Your task to perform on an android device: Open settings Image 0: 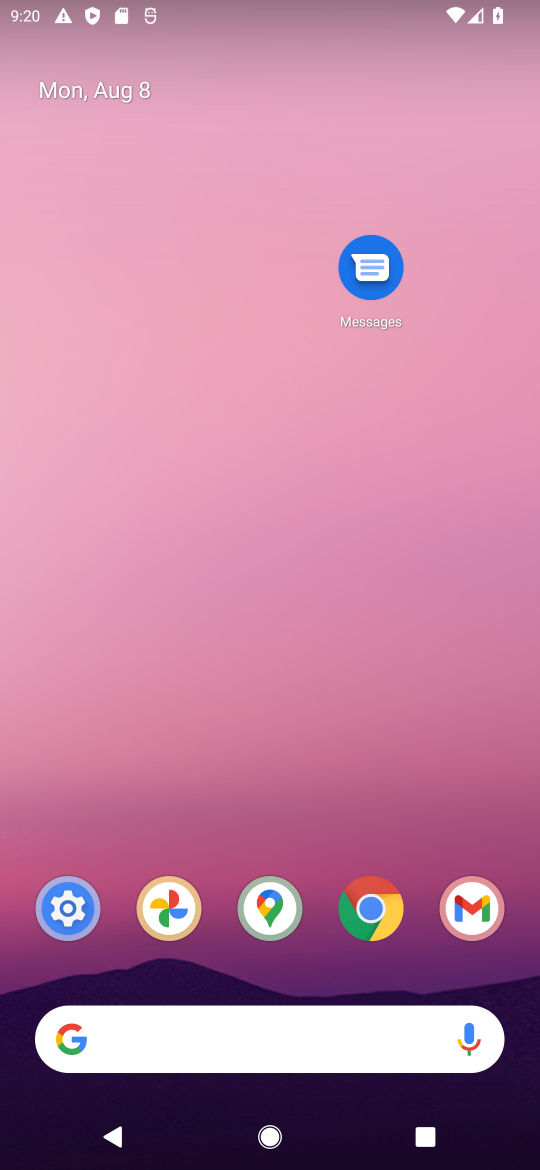
Step 0: click (65, 896)
Your task to perform on an android device: Open settings Image 1: 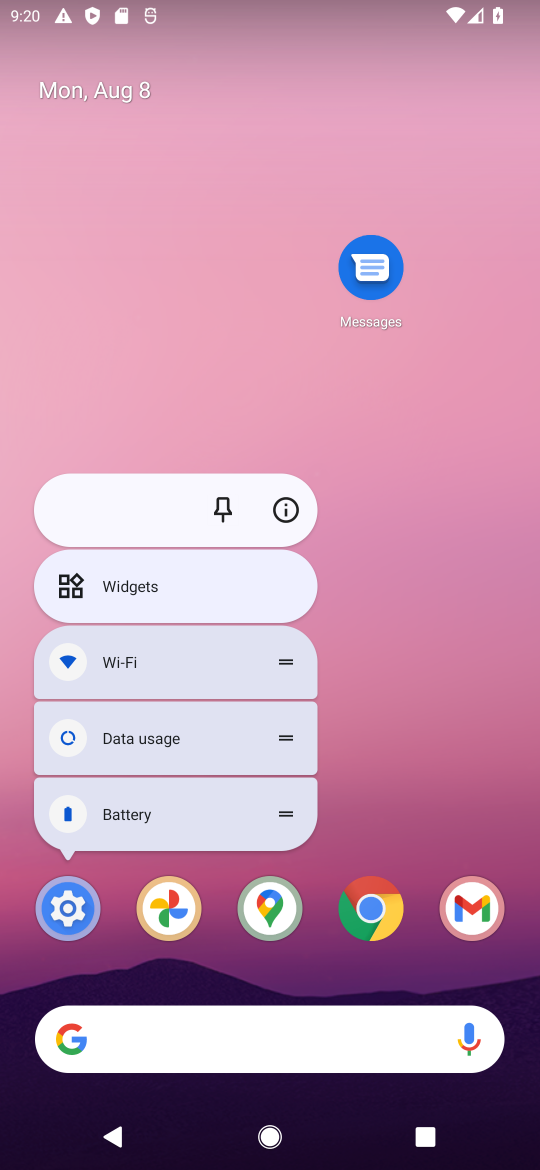
Step 1: click (65, 896)
Your task to perform on an android device: Open settings Image 2: 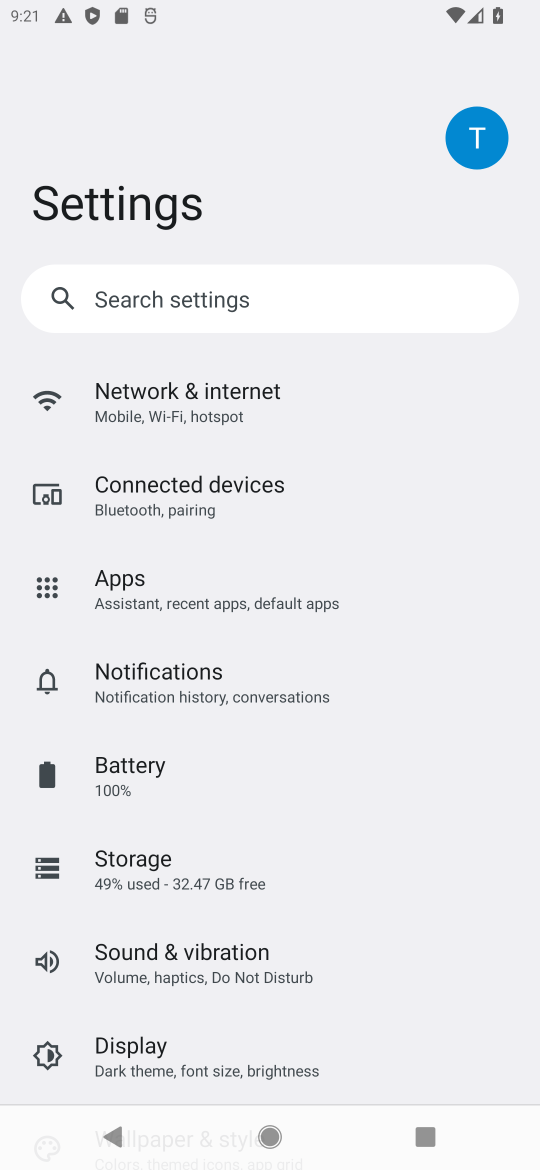
Step 2: task complete